Your task to perform on an android device: Open the calendar and show me this week's events? Image 0: 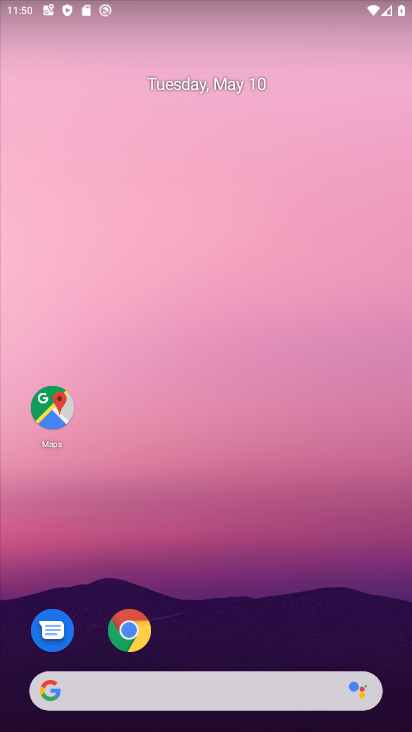
Step 0: drag from (288, 607) to (253, 5)
Your task to perform on an android device: Open the calendar and show me this week's events? Image 1: 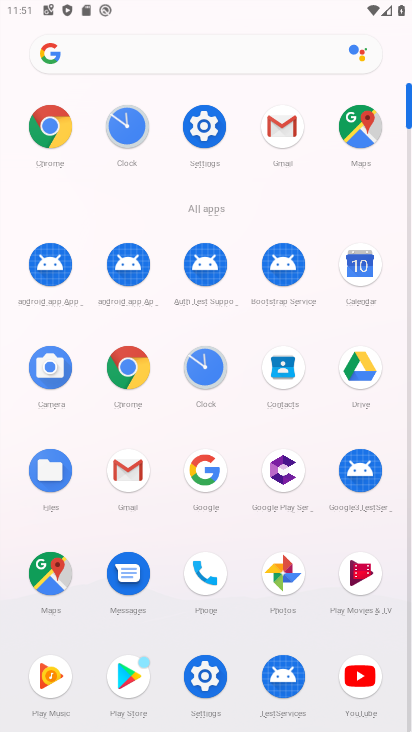
Step 1: click (371, 256)
Your task to perform on an android device: Open the calendar and show me this week's events? Image 2: 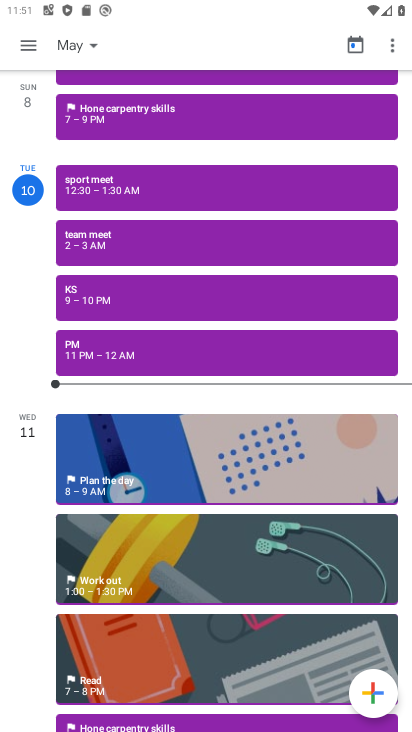
Step 2: click (65, 47)
Your task to perform on an android device: Open the calendar and show me this week's events? Image 3: 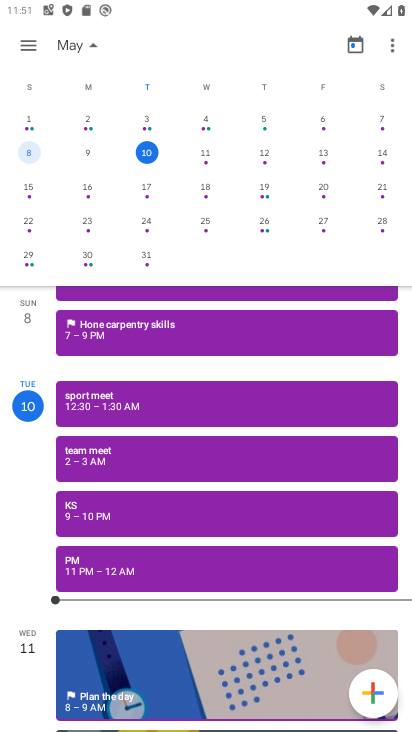
Step 3: click (28, 52)
Your task to perform on an android device: Open the calendar and show me this week's events? Image 4: 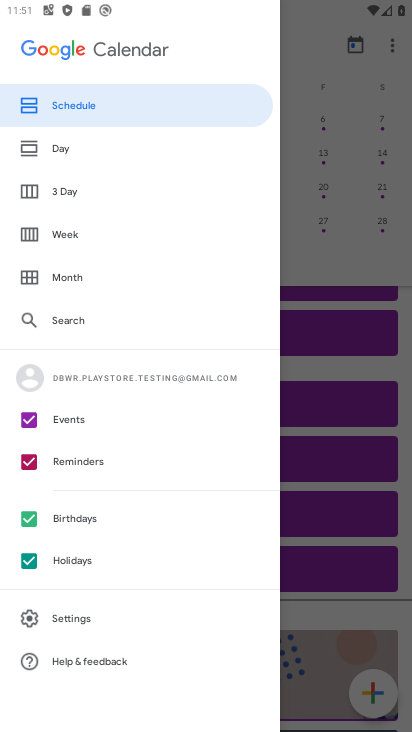
Step 4: click (71, 227)
Your task to perform on an android device: Open the calendar and show me this week's events? Image 5: 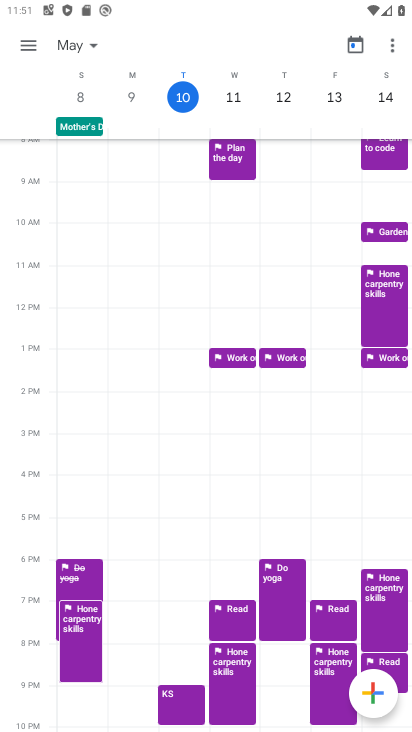
Step 5: task complete